Your task to perform on an android device: delete browsing data in the chrome app Image 0: 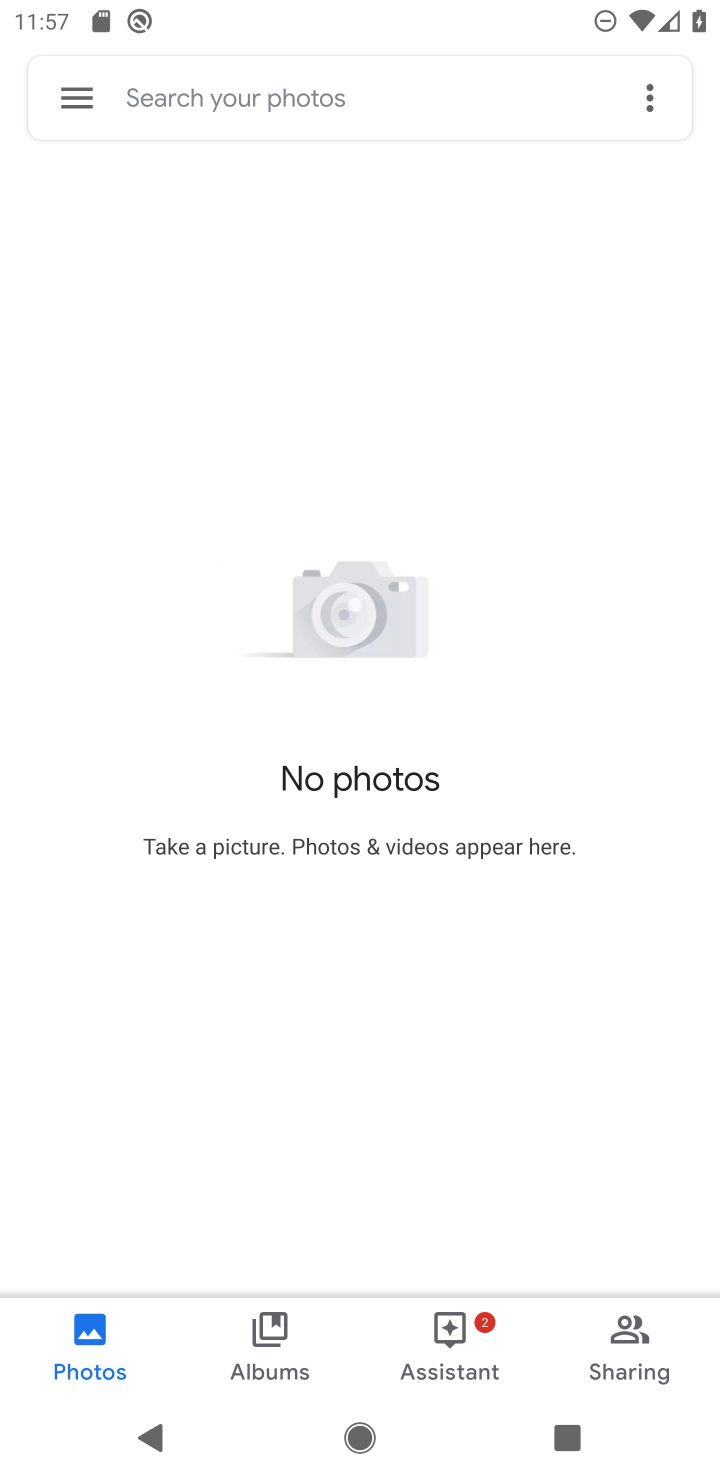
Step 0: press home button
Your task to perform on an android device: delete browsing data in the chrome app Image 1: 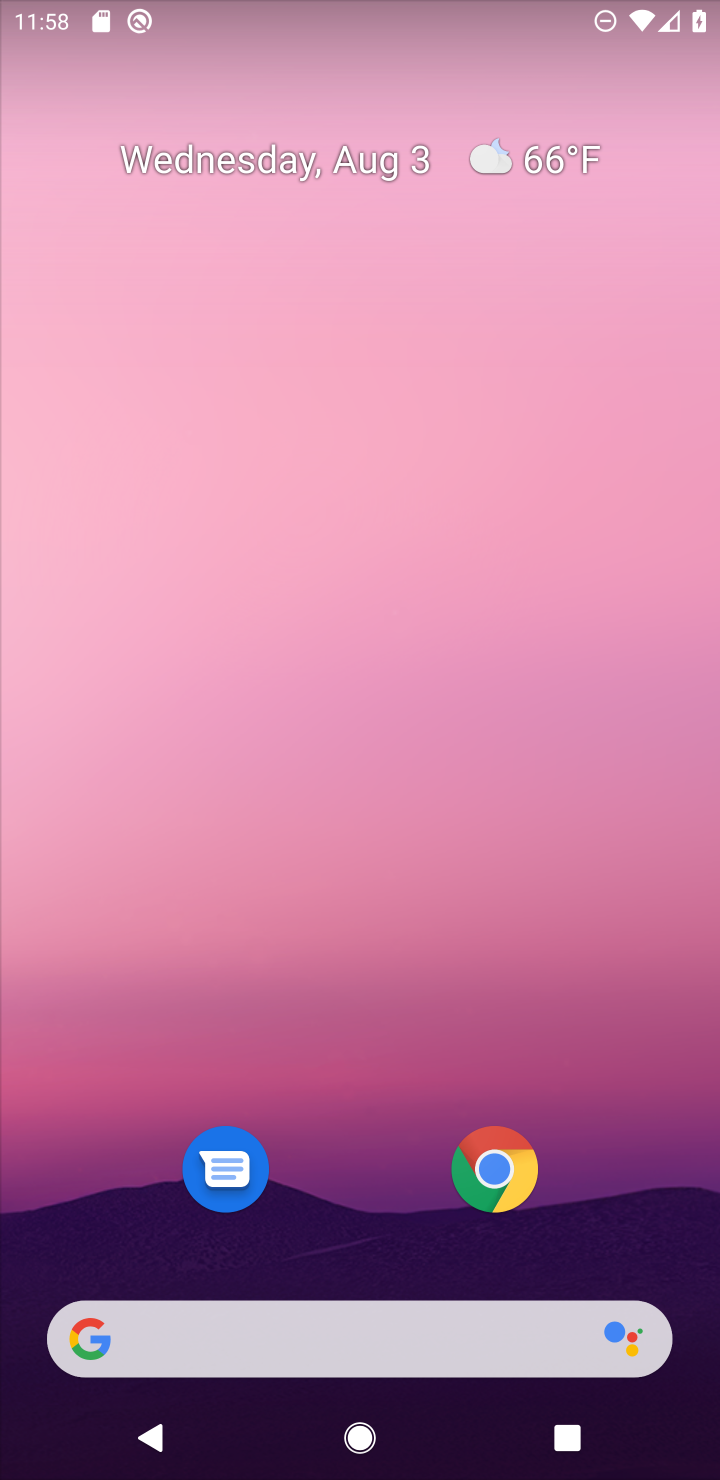
Step 1: click (500, 1169)
Your task to perform on an android device: delete browsing data in the chrome app Image 2: 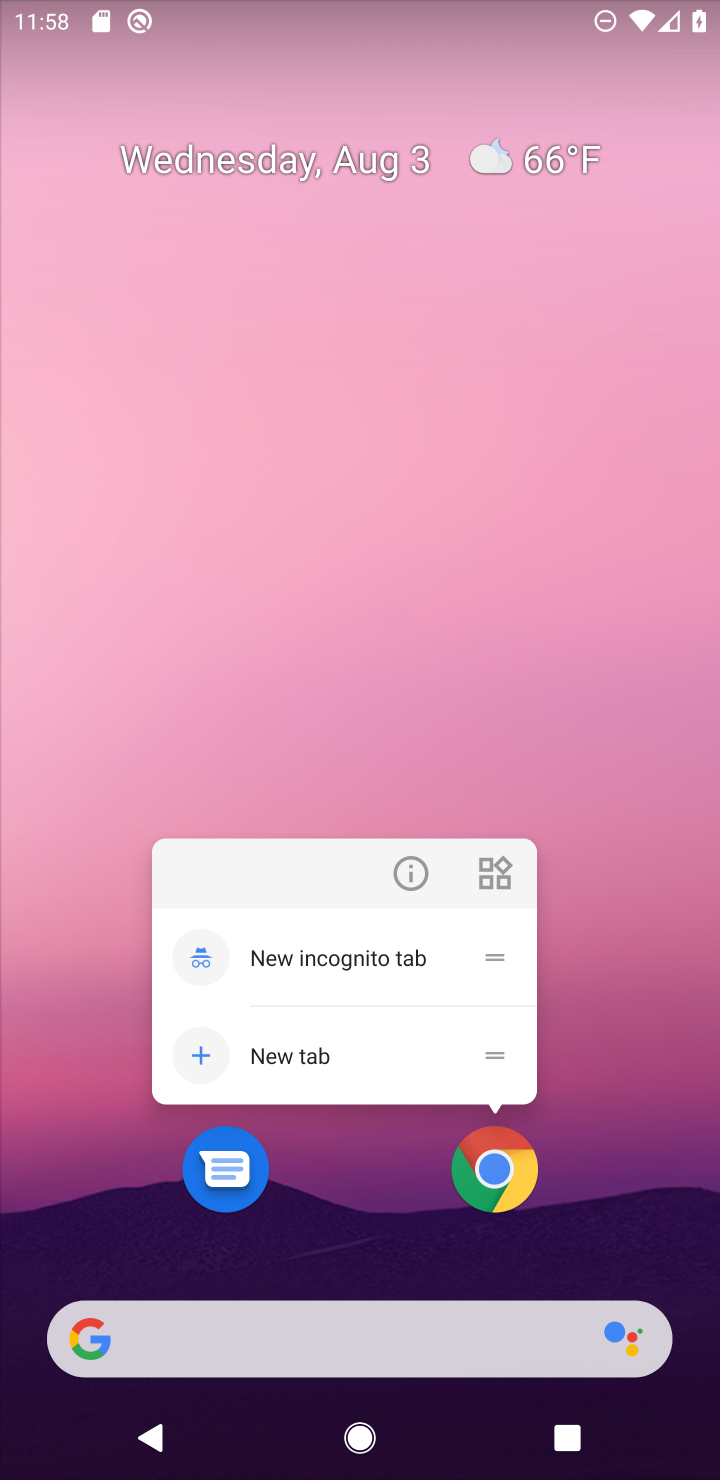
Step 2: click (511, 1184)
Your task to perform on an android device: delete browsing data in the chrome app Image 3: 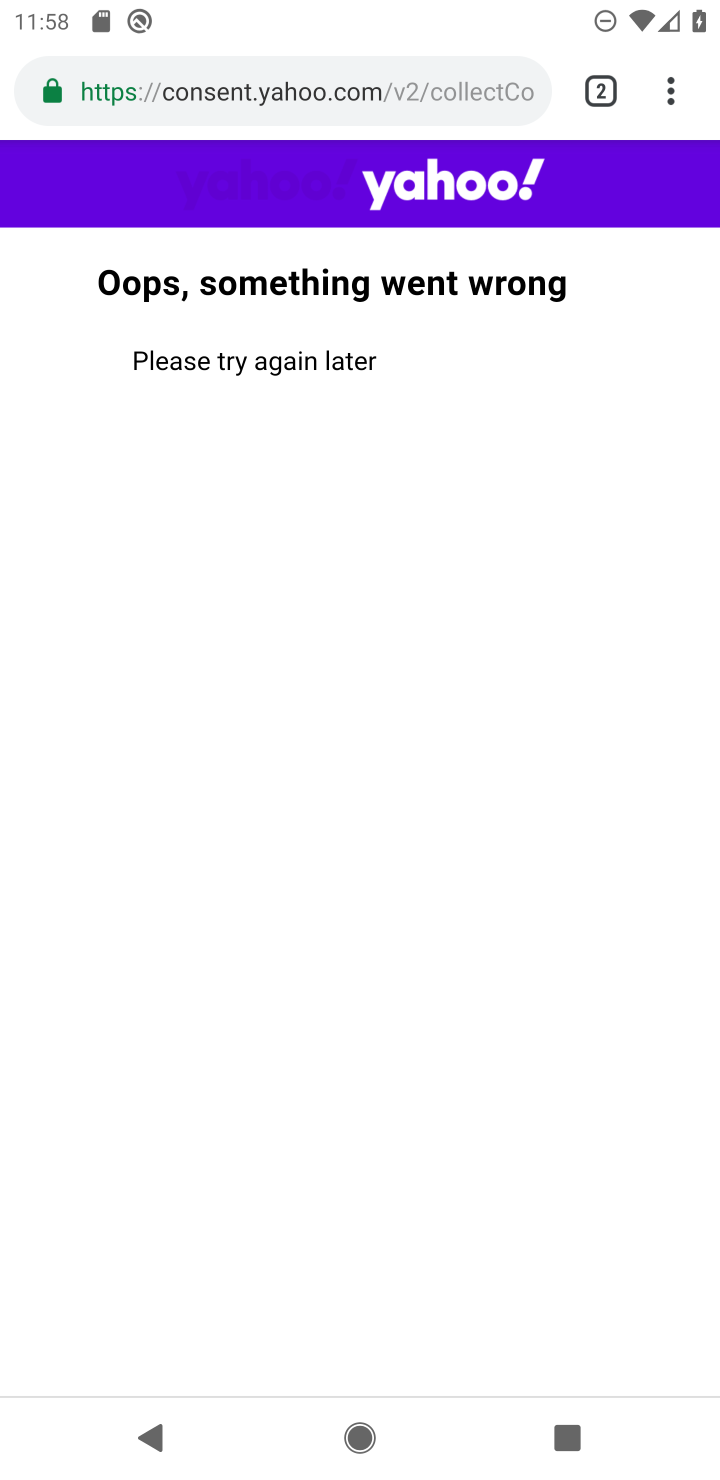
Step 3: click (678, 101)
Your task to perform on an android device: delete browsing data in the chrome app Image 4: 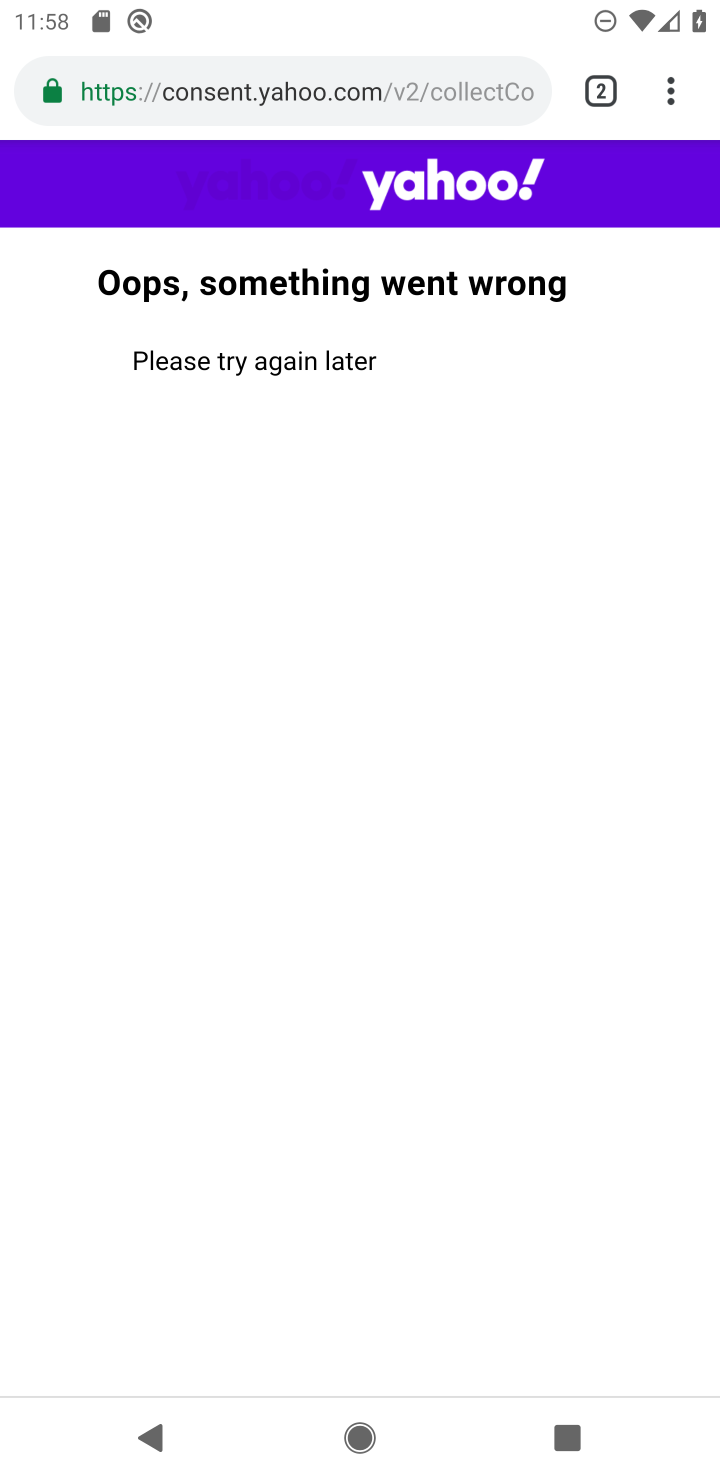
Step 4: drag from (673, 90) to (337, 1017)
Your task to perform on an android device: delete browsing data in the chrome app Image 5: 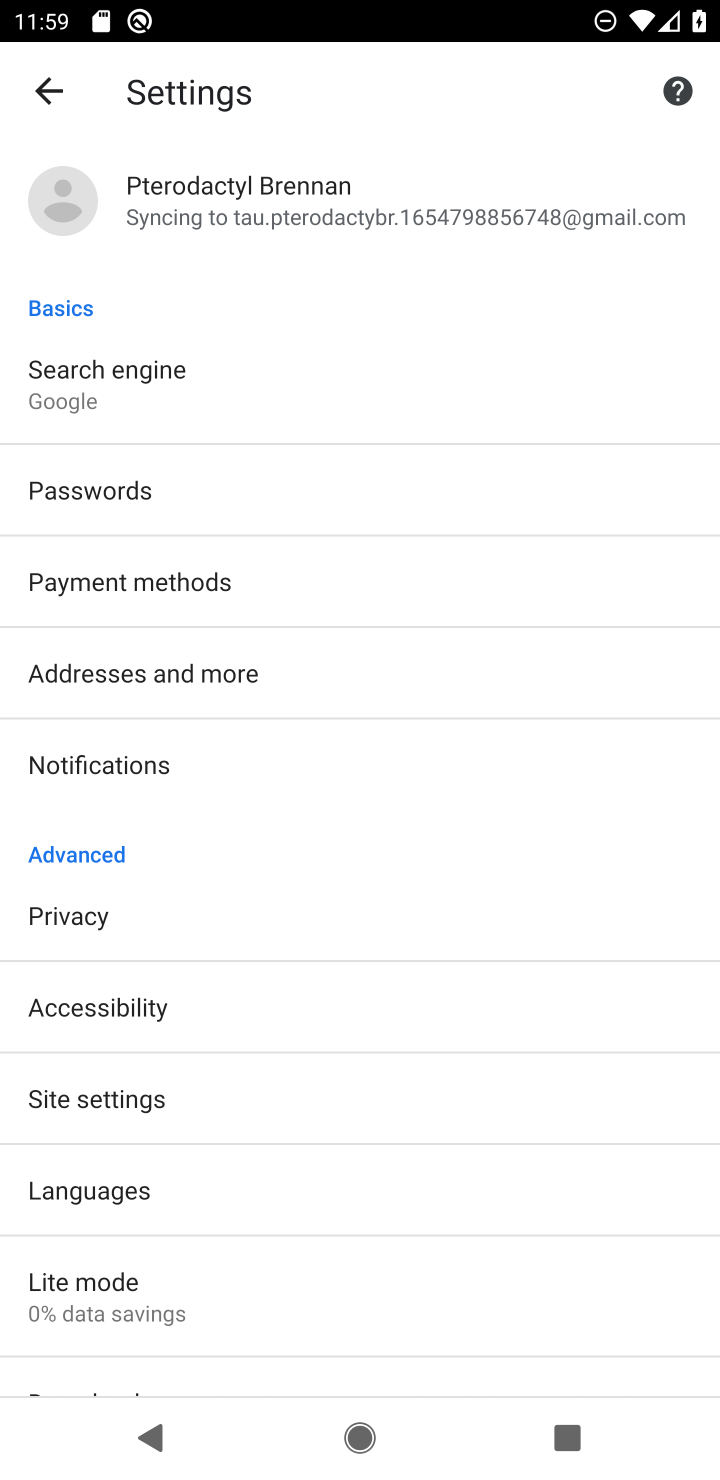
Step 5: click (56, 911)
Your task to perform on an android device: delete browsing data in the chrome app Image 6: 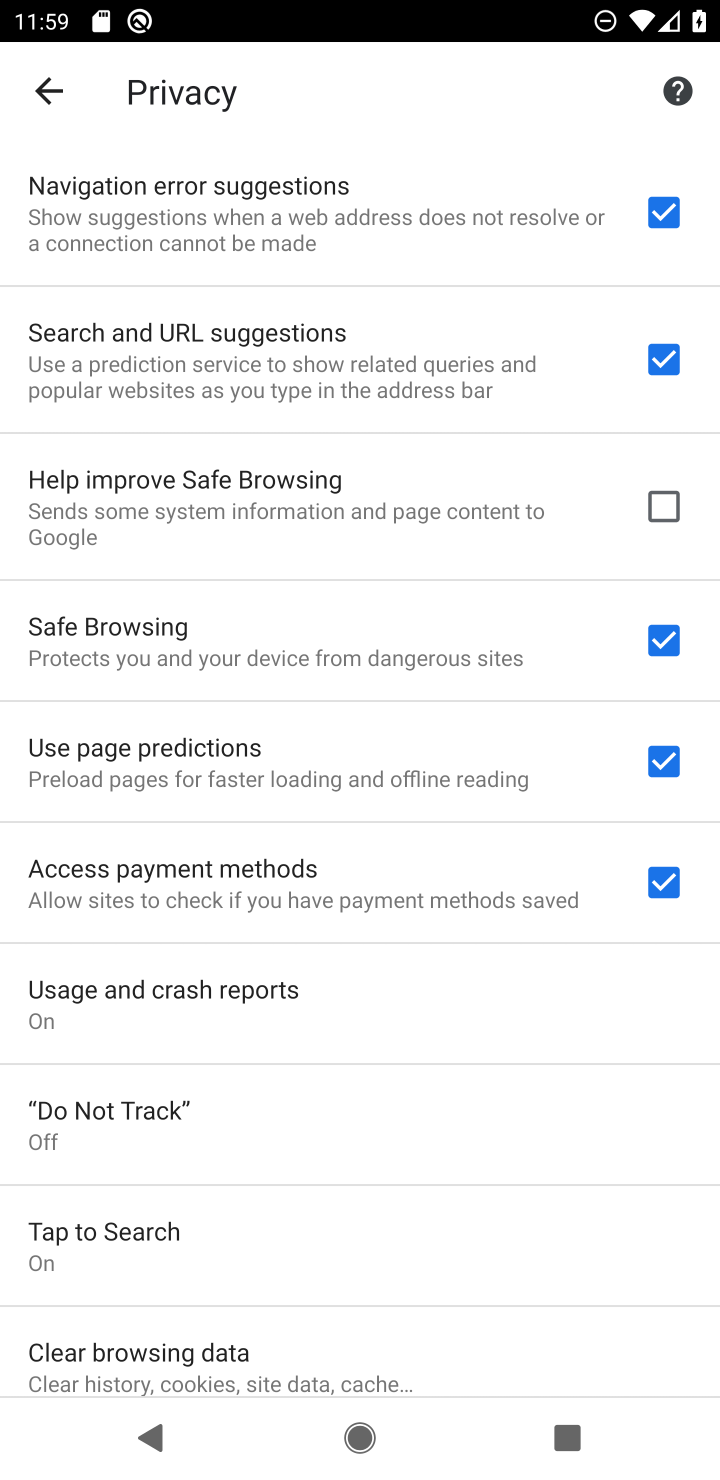
Step 6: drag from (455, 1186) to (469, 636)
Your task to perform on an android device: delete browsing data in the chrome app Image 7: 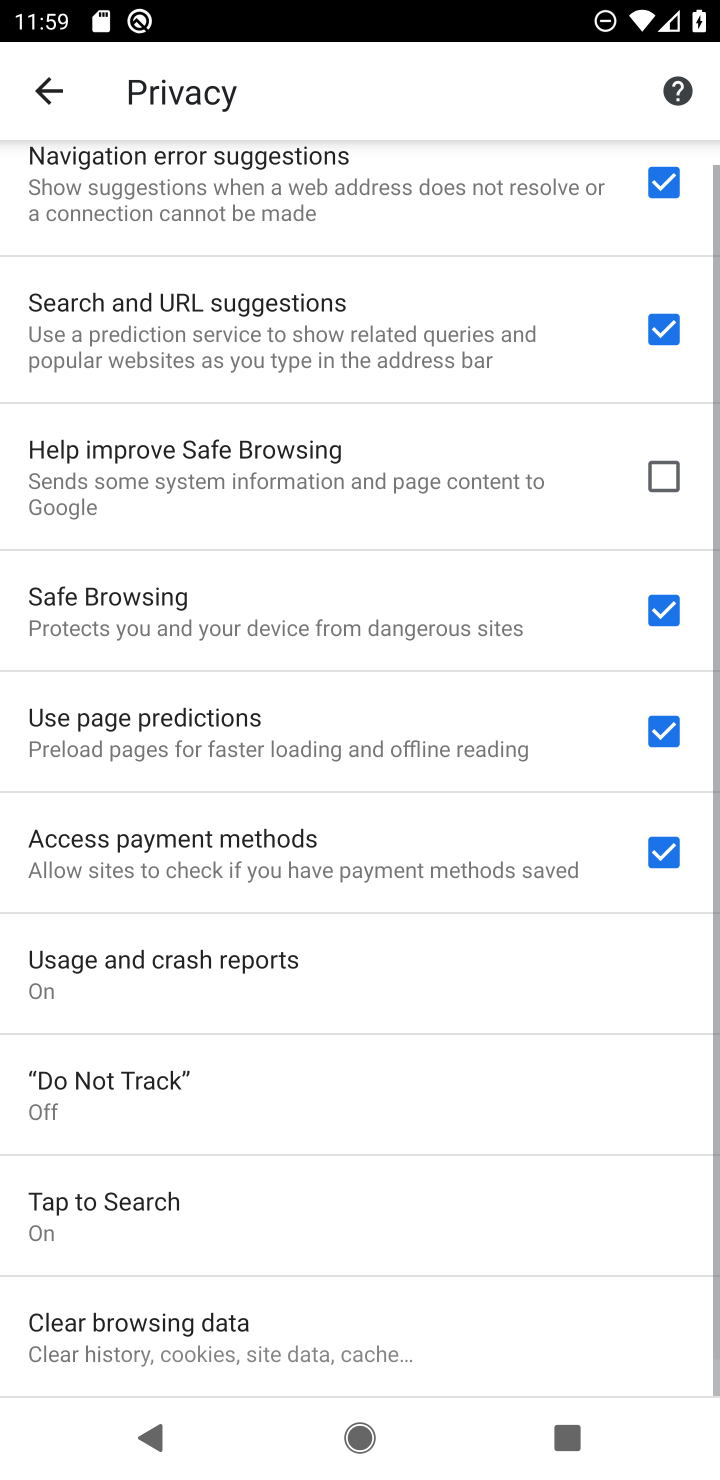
Step 7: click (232, 1355)
Your task to perform on an android device: delete browsing data in the chrome app Image 8: 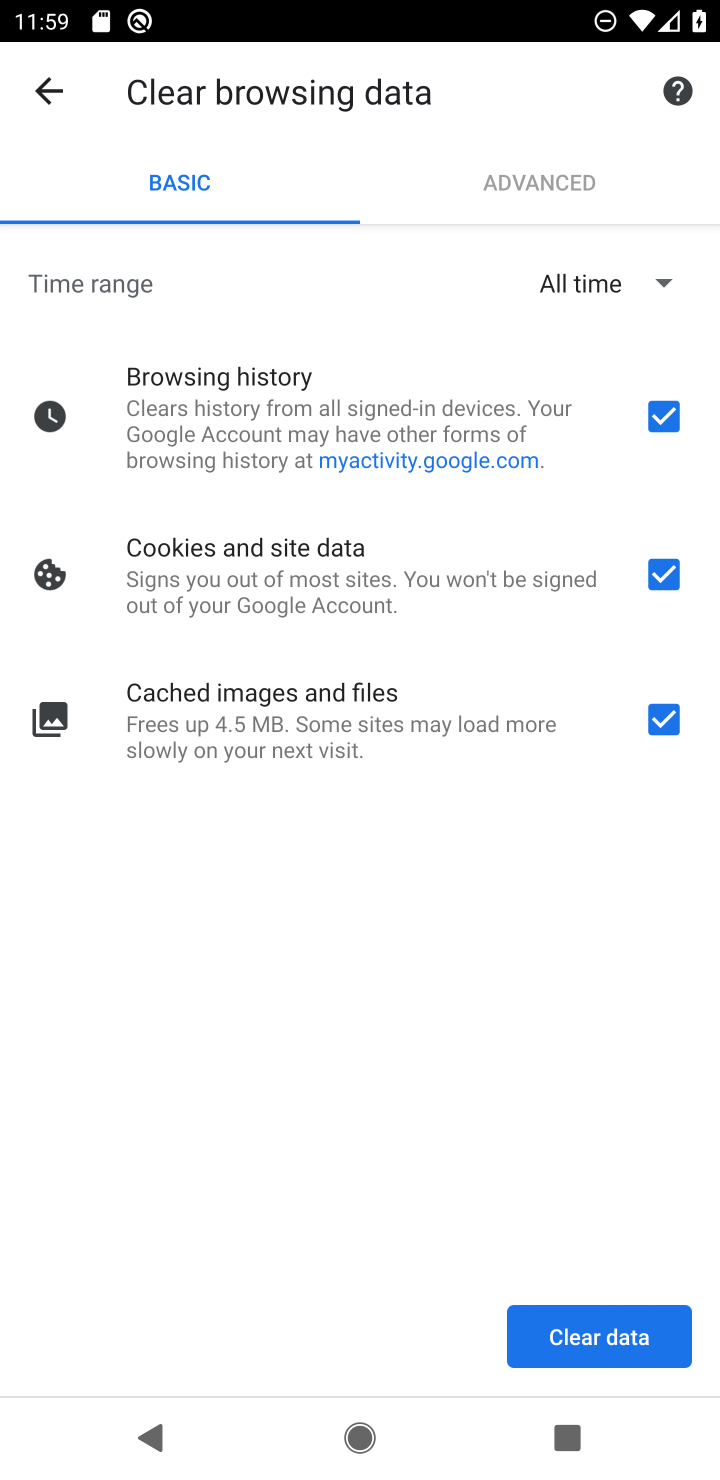
Step 8: click (609, 1343)
Your task to perform on an android device: delete browsing data in the chrome app Image 9: 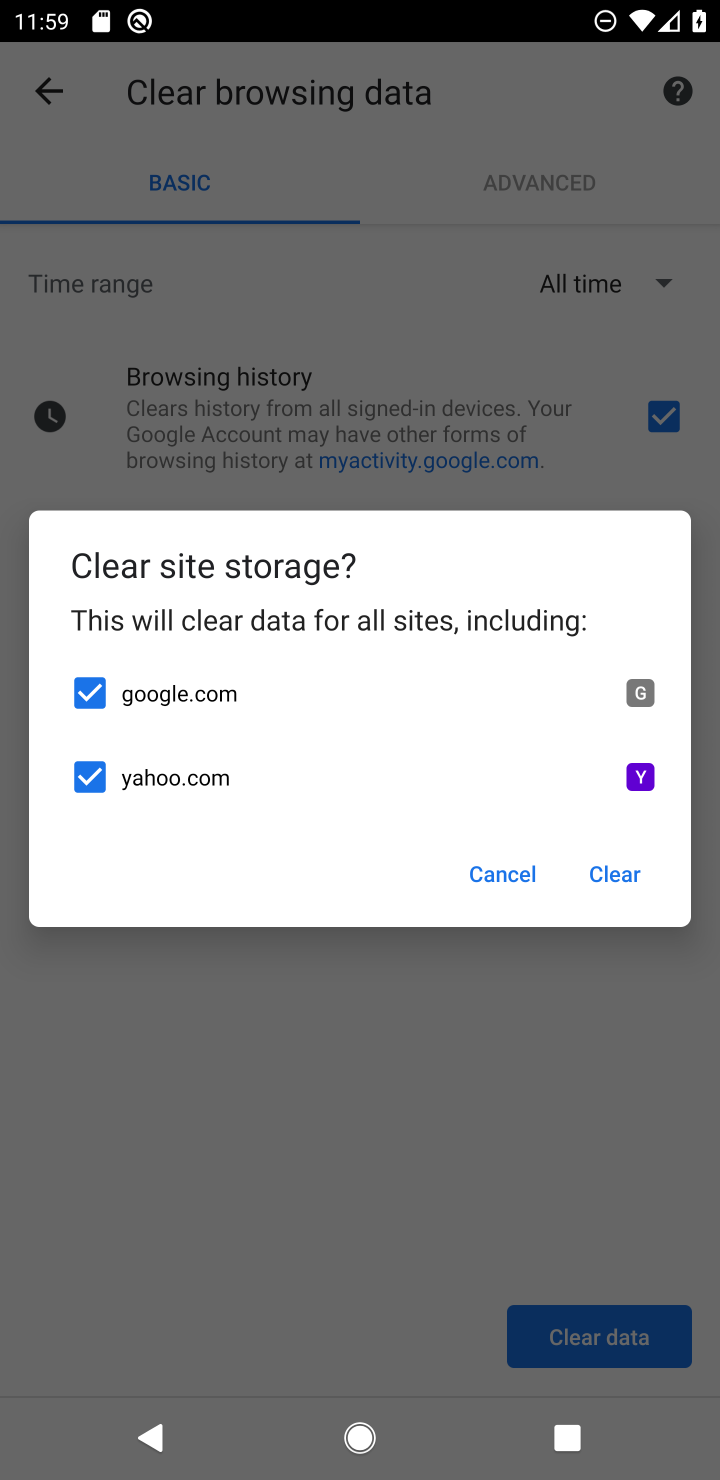
Step 9: click (616, 881)
Your task to perform on an android device: delete browsing data in the chrome app Image 10: 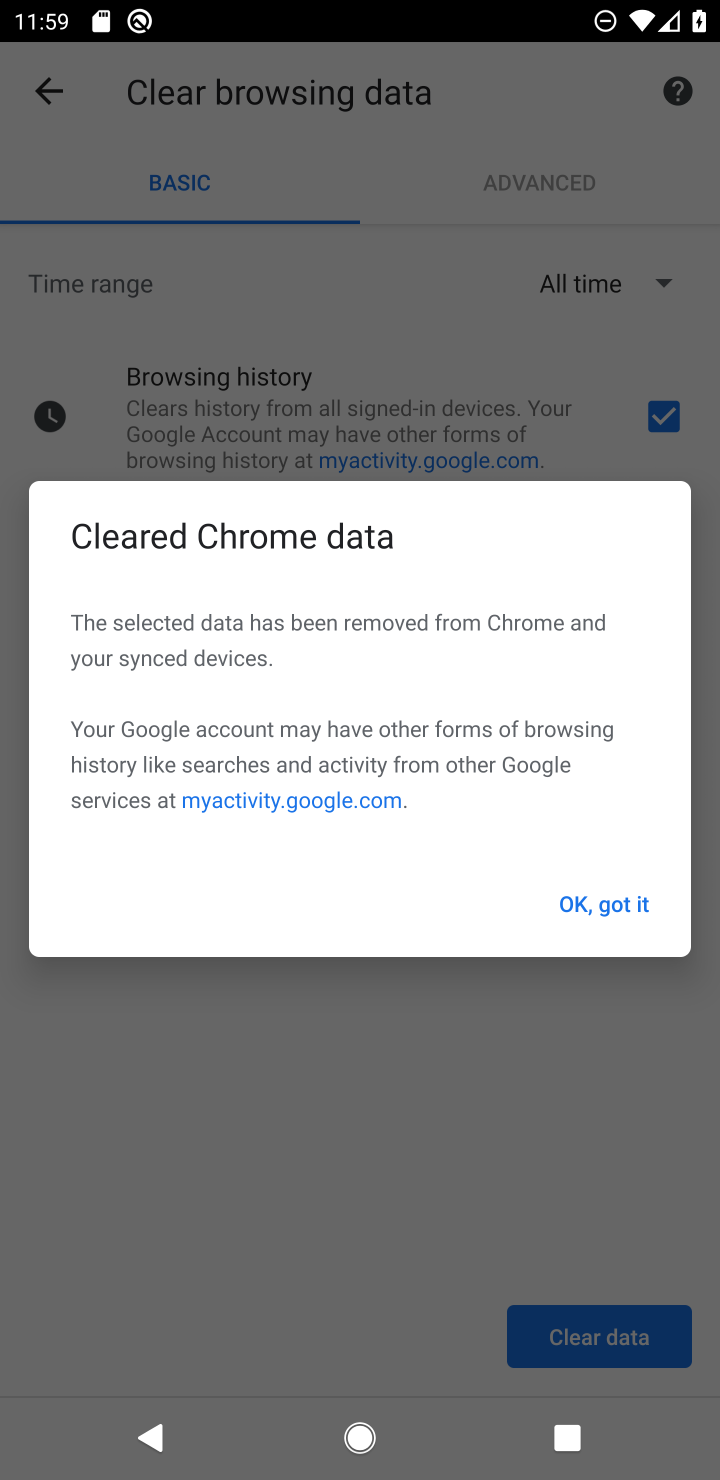
Step 10: click (623, 910)
Your task to perform on an android device: delete browsing data in the chrome app Image 11: 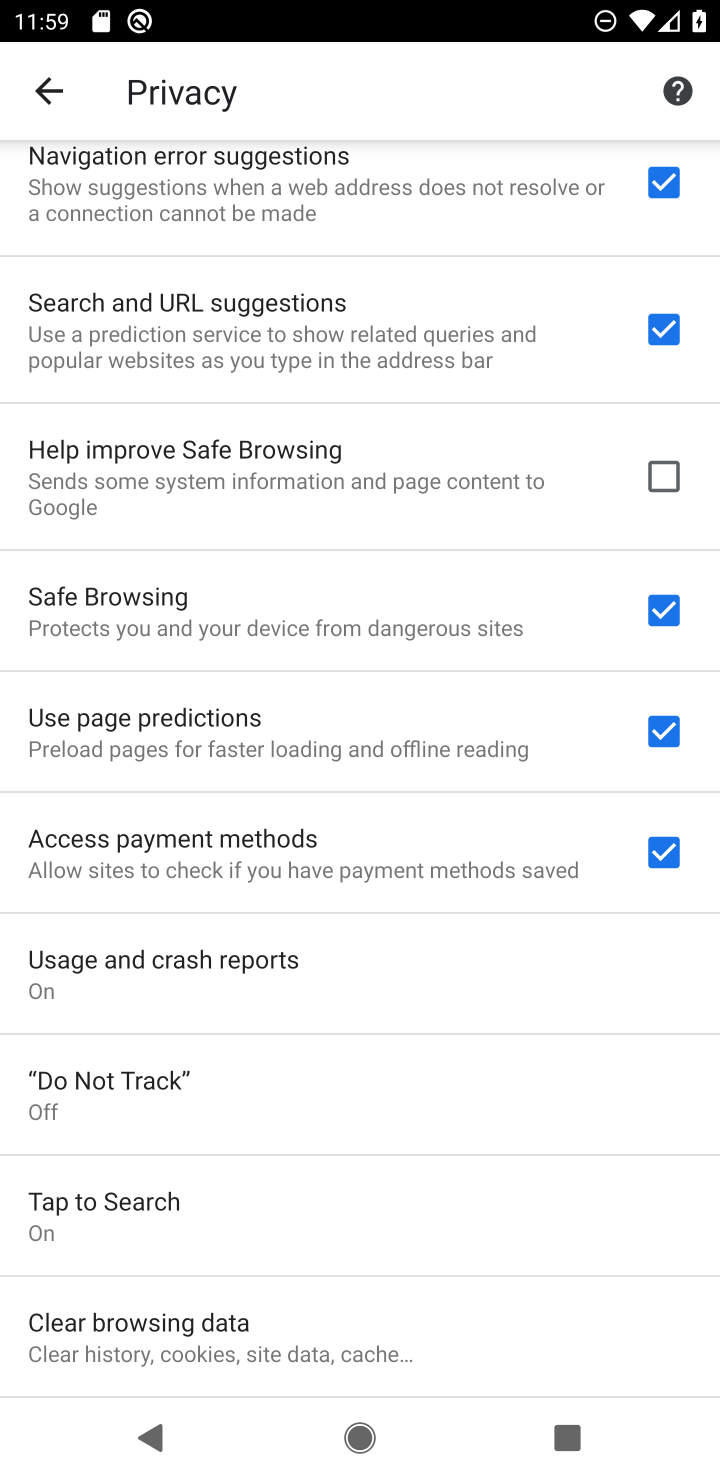
Step 11: task complete